Your task to perform on an android device: Open network settings Image 0: 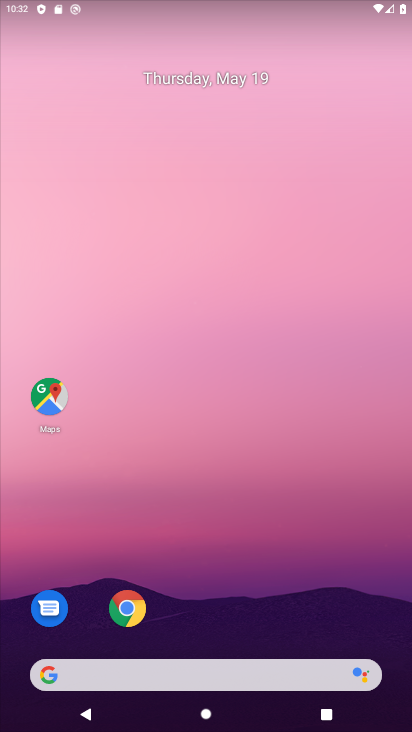
Step 0: drag from (401, 677) to (380, 294)
Your task to perform on an android device: Open network settings Image 1: 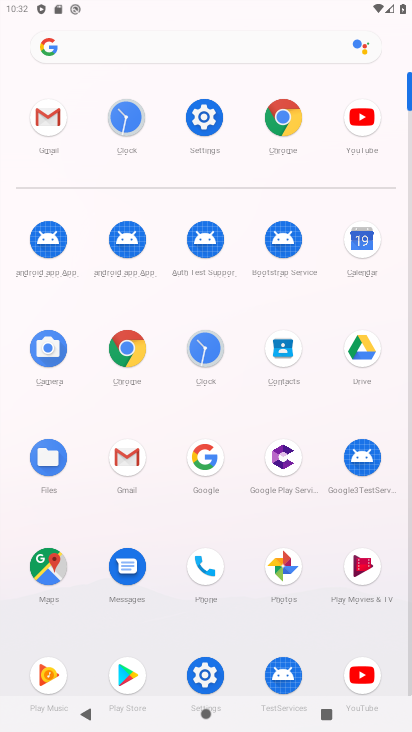
Step 1: click (213, 119)
Your task to perform on an android device: Open network settings Image 2: 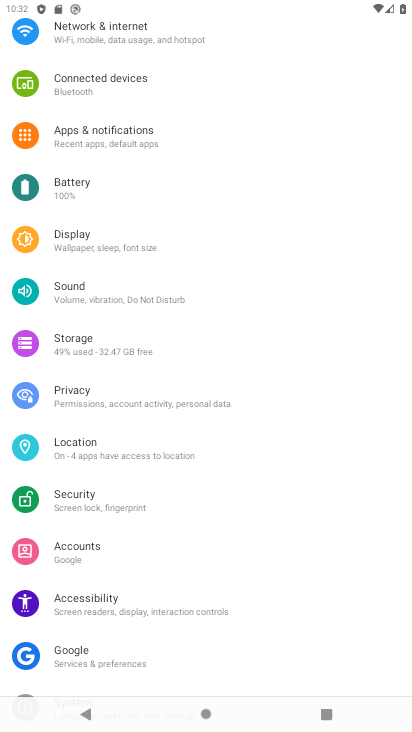
Step 2: drag from (335, 157) to (296, 450)
Your task to perform on an android device: Open network settings Image 3: 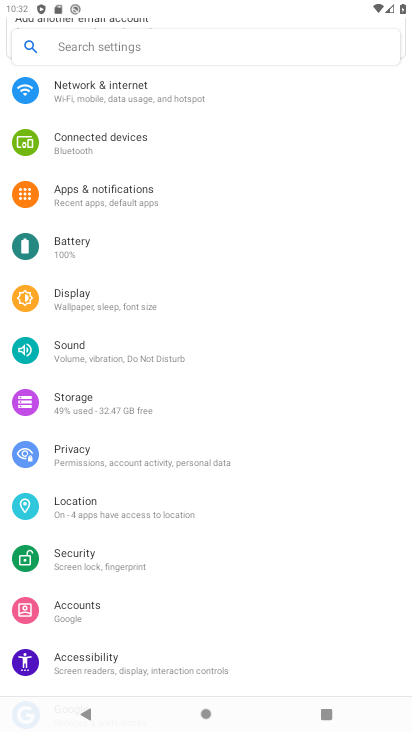
Step 3: click (110, 90)
Your task to perform on an android device: Open network settings Image 4: 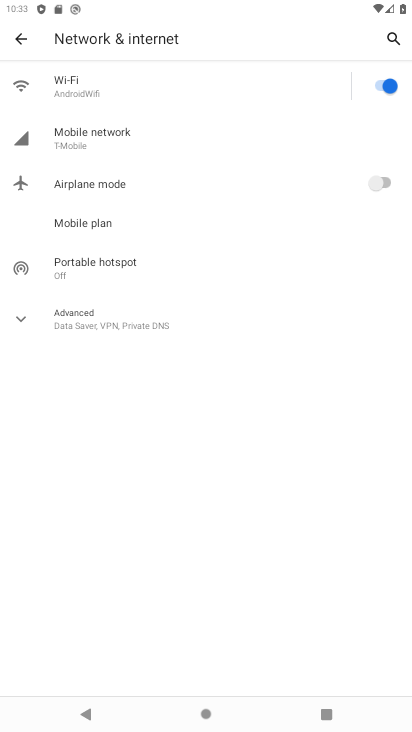
Step 4: click (65, 143)
Your task to perform on an android device: Open network settings Image 5: 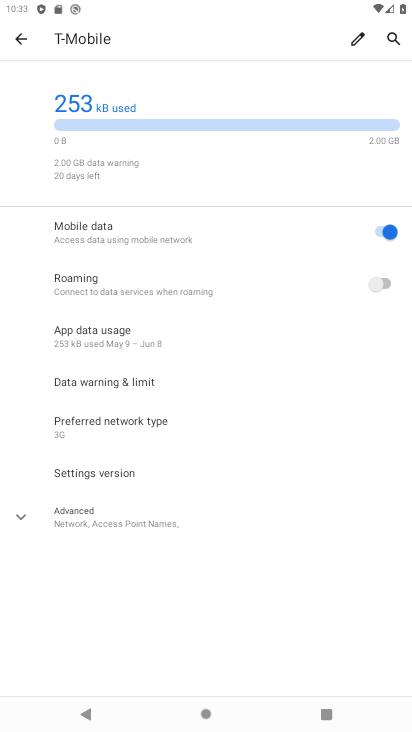
Step 5: task complete